Your task to perform on an android device: Open wifi settings Image 0: 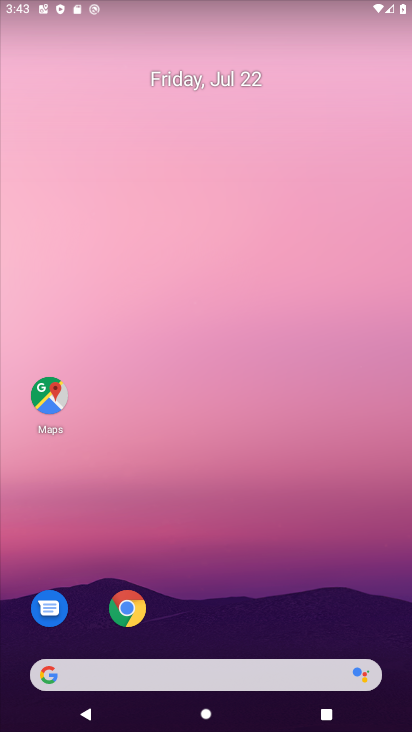
Step 0: drag from (240, 720) to (238, 128)
Your task to perform on an android device: Open wifi settings Image 1: 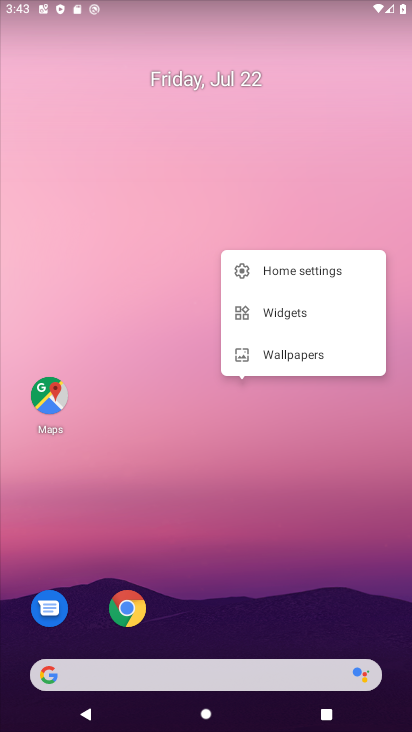
Step 1: click (238, 572)
Your task to perform on an android device: Open wifi settings Image 2: 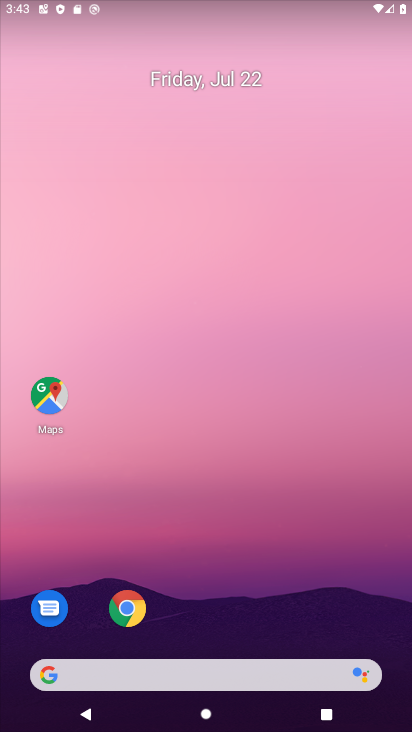
Step 2: drag from (229, 710) to (203, 278)
Your task to perform on an android device: Open wifi settings Image 3: 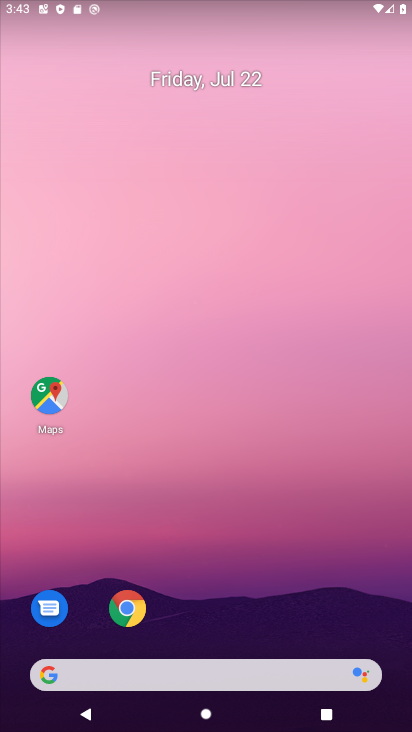
Step 3: drag from (226, 710) to (230, 136)
Your task to perform on an android device: Open wifi settings Image 4: 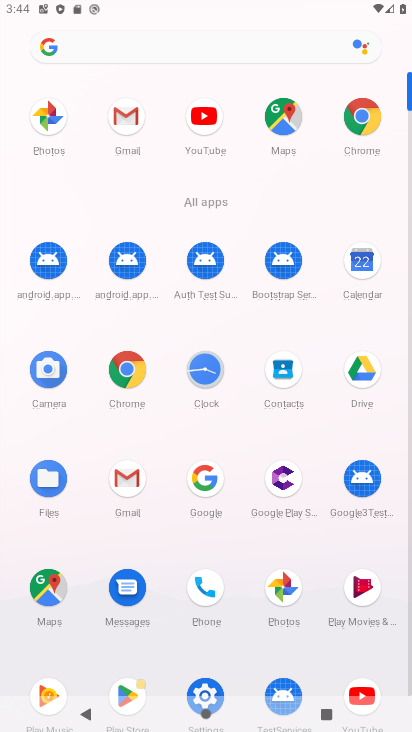
Step 4: click (203, 690)
Your task to perform on an android device: Open wifi settings Image 5: 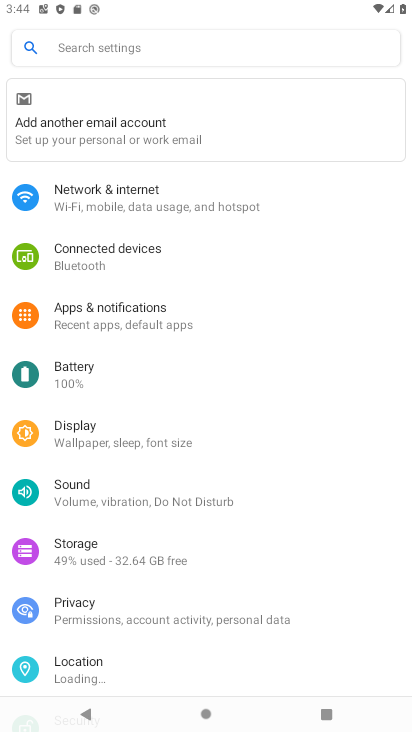
Step 5: click (84, 198)
Your task to perform on an android device: Open wifi settings Image 6: 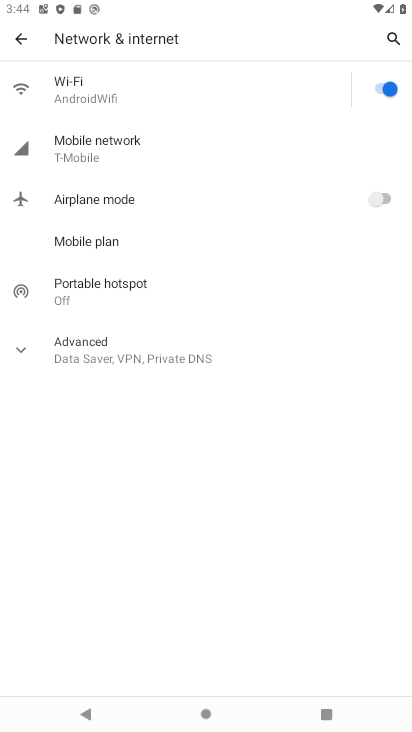
Step 6: click (77, 83)
Your task to perform on an android device: Open wifi settings Image 7: 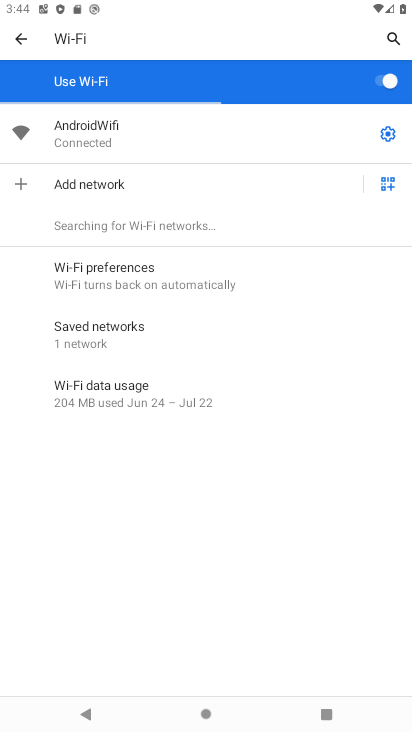
Step 7: task complete